Your task to perform on an android device: change the upload size in google photos Image 0: 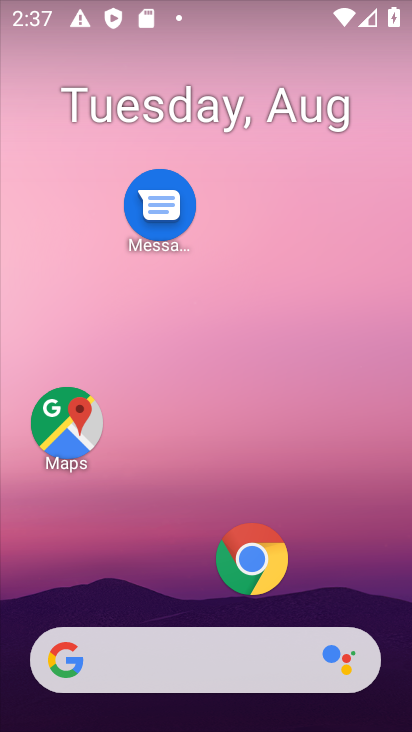
Step 0: drag from (167, 587) to (215, 92)
Your task to perform on an android device: change the upload size in google photos Image 1: 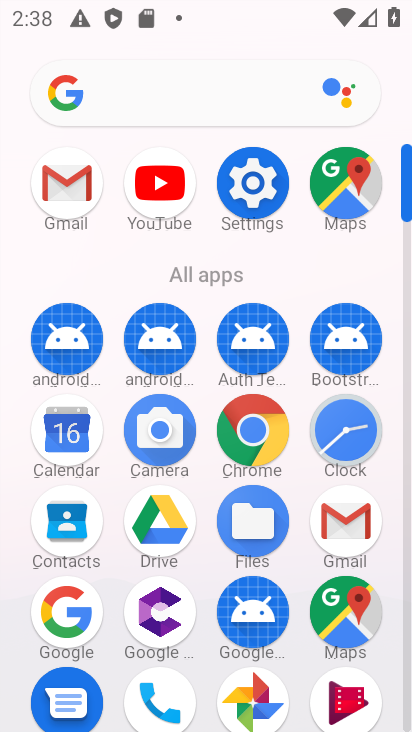
Step 1: click (251, 683)
Your task to perform on an android device: change the upload size in google photos Image 2: 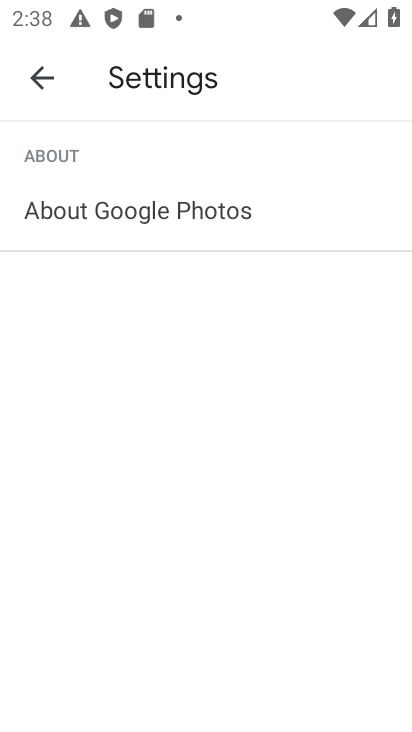
Step 2: click (49, 77)
Your task to perform on an android device: change the upload size in google photos Image 3: 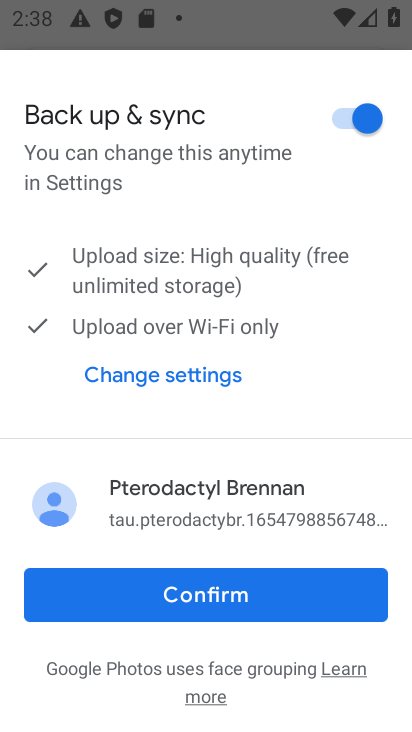
Step 3: click (213, 603)
Your task to perform on an android device: change the upload size in google photos Image 4: 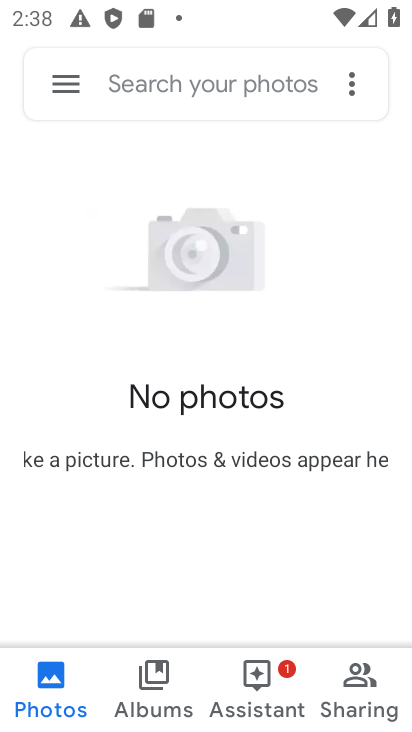
Step 4: click (61, 76)
Your task to perform on an android device: change the upload size in google photos Image 5: 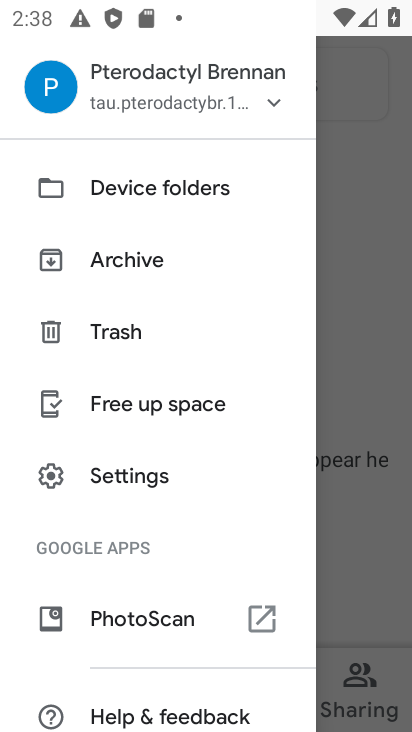
Step 5: click (139, 473)
Your task to perform on an android device: change the upload size in google photos Image 6: 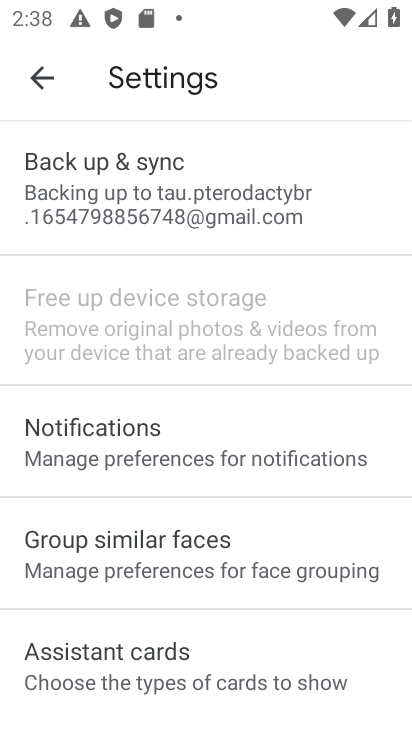
Step 6: click (138, 171)
Your task to perform on an android device: change the upload size in google photos Image 7: 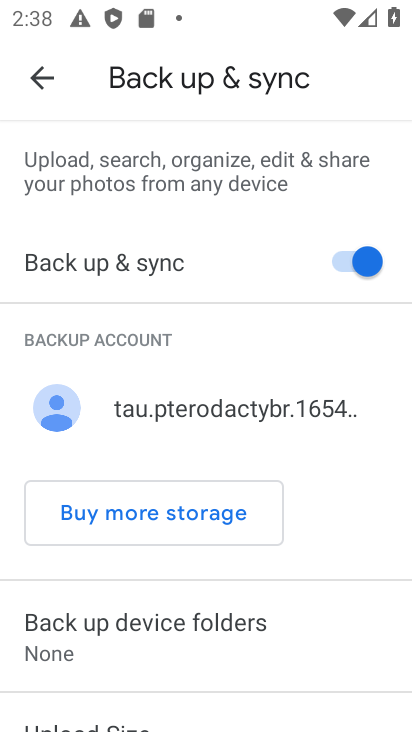
Step 7: drag from (175, 665) to (175, 346)
Your task to perform on an android device: change the upload size in google photos Image 8: 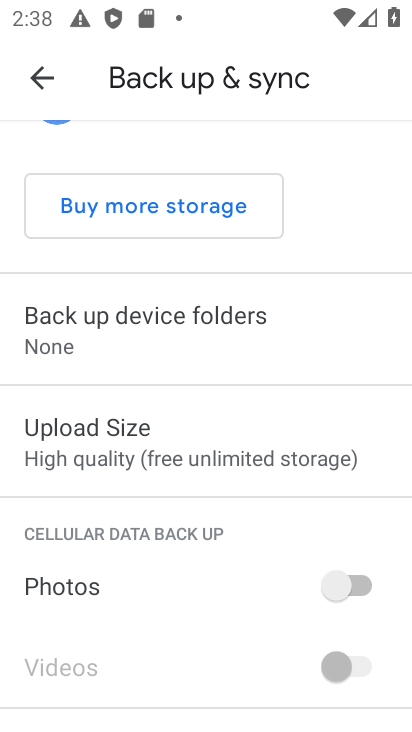
Step 8: click (105, 477)
Your task to perform on an android device: change the upload size in google photos Image 9: 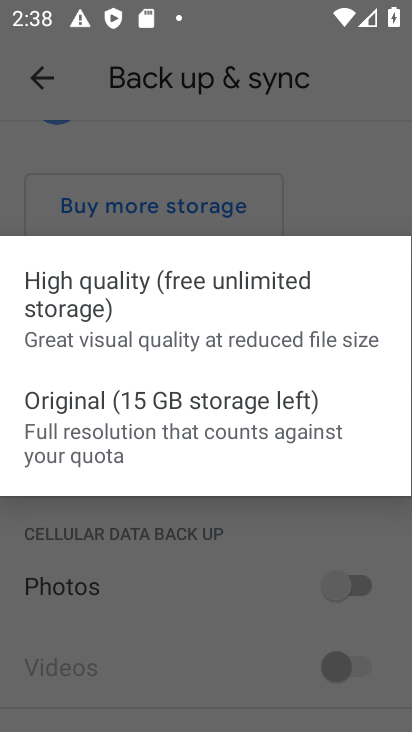
Step 9: task complete